Your task to perform on an android device: change notification settings in the gmail app Image 0: 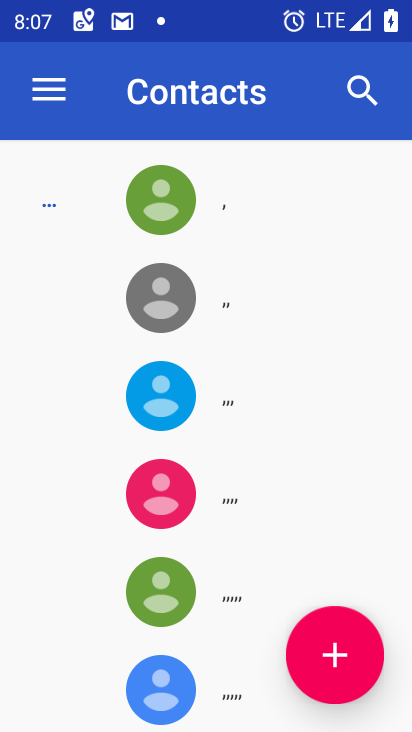
Step 0: press home button
Your task to perform on an android device: change notification settings in the gmail app Image 1: 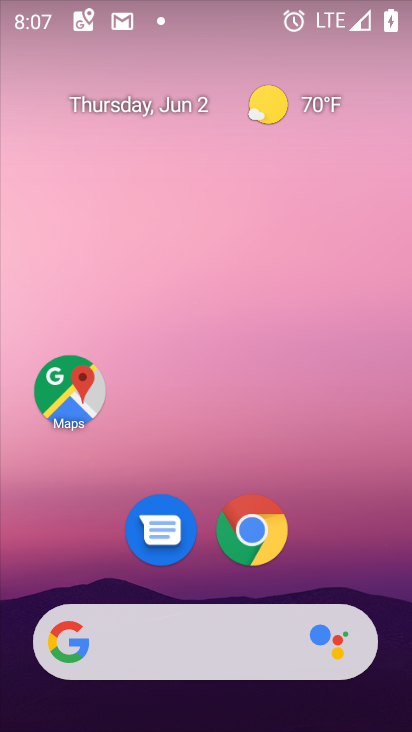
Step 1: drag from (186, 612) to (220, 334)
Your task to perform on an android device: change notification settings in the gmail app Image 2: 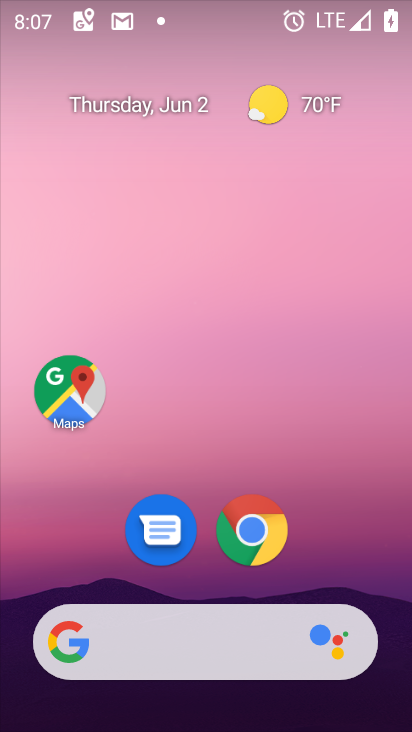
Step 2: drag from (196, 554) to (218, 343)
Your task to perform on an android device: change notification settings in the gmail app Image 3: 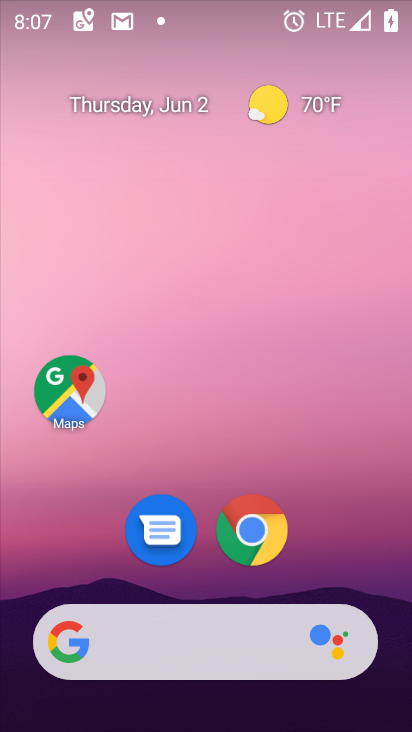
Step 3: drag from (189, 609) to (231, 253)
Your task to perform on an android device: change notification settings in the gmail app Image 4: 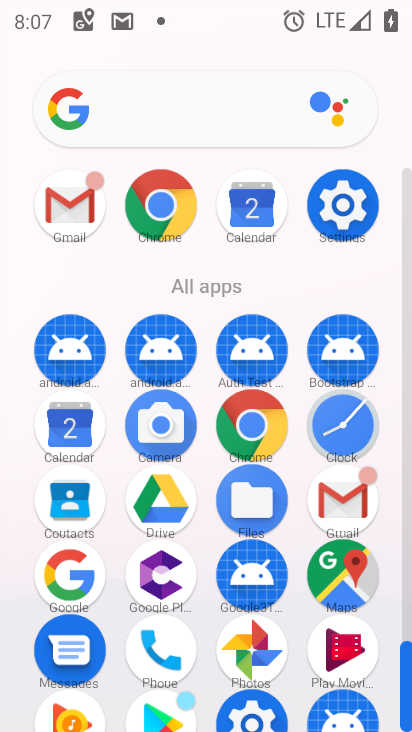
Step 4: click (339, 496)
Your task to perform on an android device: change notification settings in the gmail app Image 5: 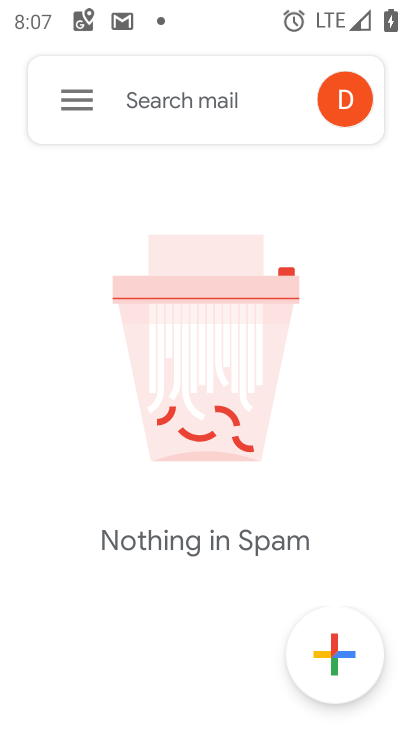
Step 5: click (74, 101)
Your task to perform on an android device: change notification settings in the gmail app Image 6: 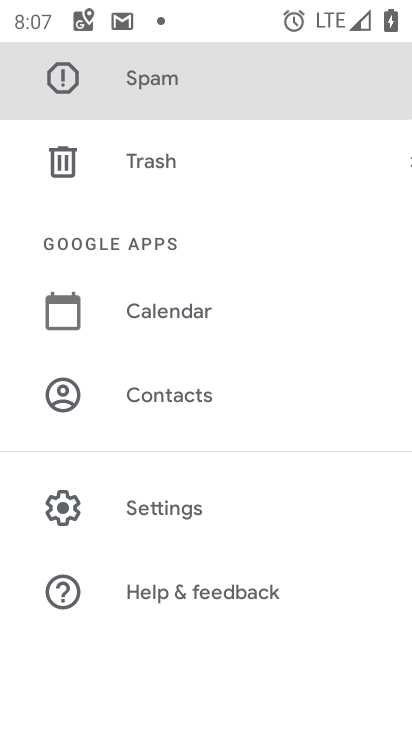
Step 6: click (143, 504)
Your task to perform on an android device: change notification settings in the gmail app Image 7: 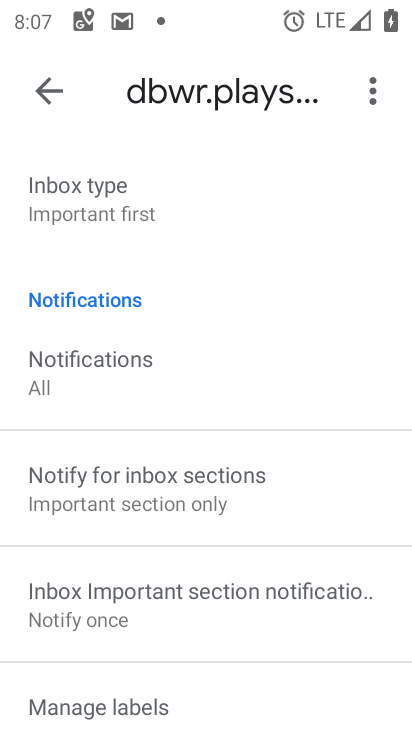
Step 7: click (89, 370)
Your task to perform on an android device: change notification settings in the gmail app Image 8: 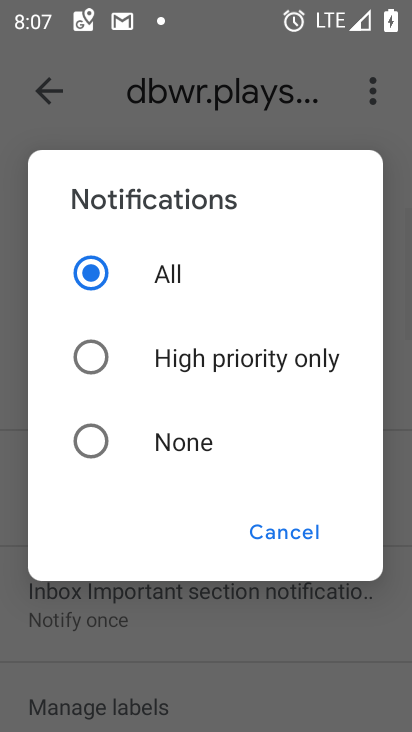
Step 8: click (162, 359)
Your task to perform on an android device: change notification settings in the gmail app Image 9: 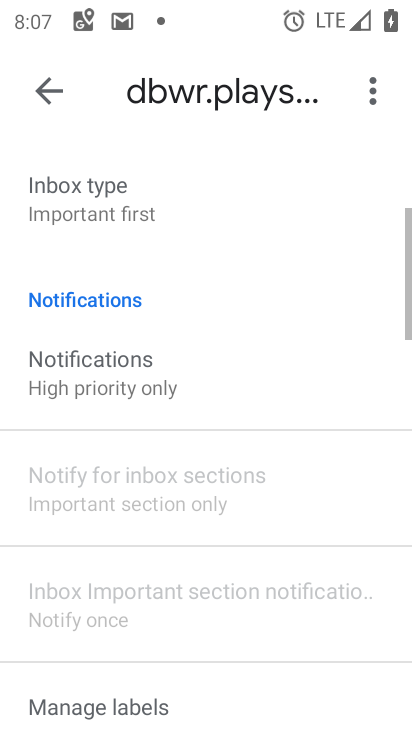
Step 9: task complete